Your task to perform on an android device: Open internet settings Image 0: 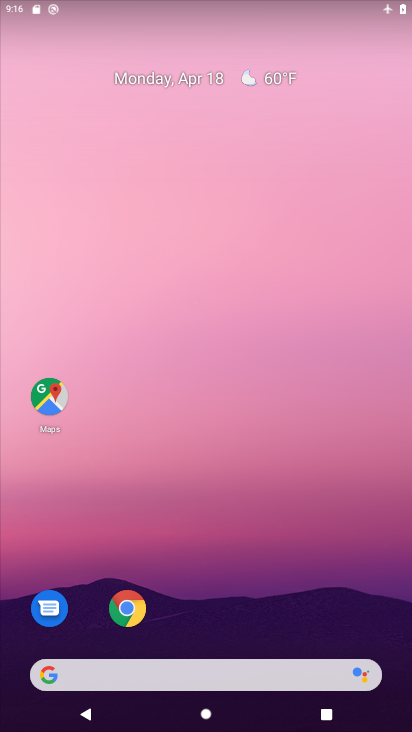
Step 0: drag from (322, 606) to (332, 105)
Your task to perform on an android device: Open internet settings Image 1: 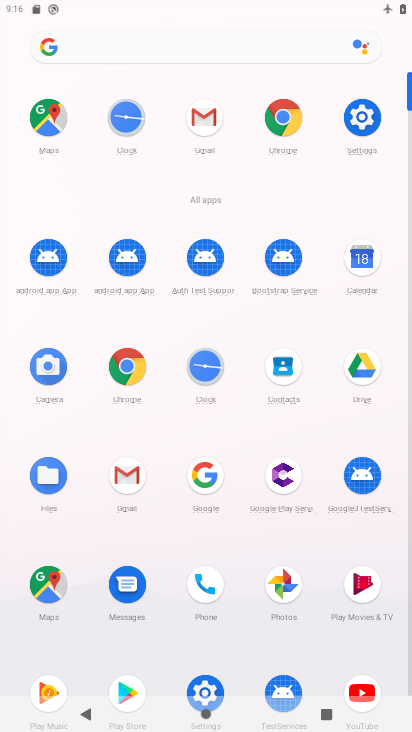
Step 1: click (359, 113)
Your task to perform on an android device: Open internet settings Image 2: 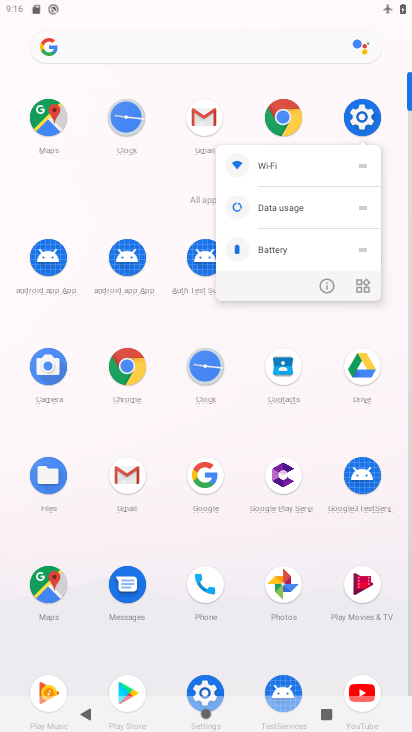
Step 2: click (319, 73)
Your task to perform on an android device: Open internet settings Image 3: 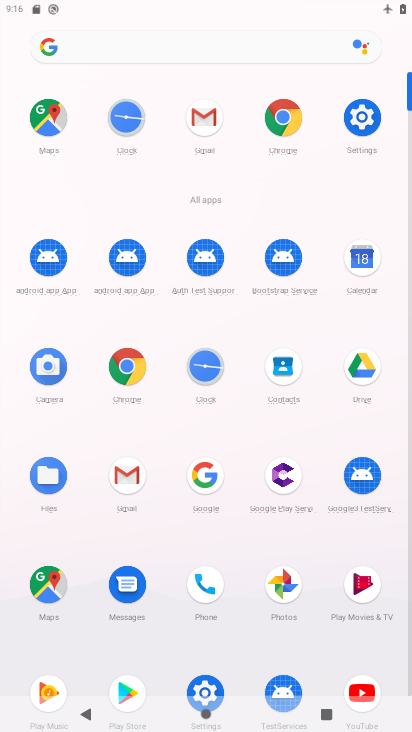
Step 3: click (367, 117)
Your task to perform on an android device: Open internet settings Image 4: 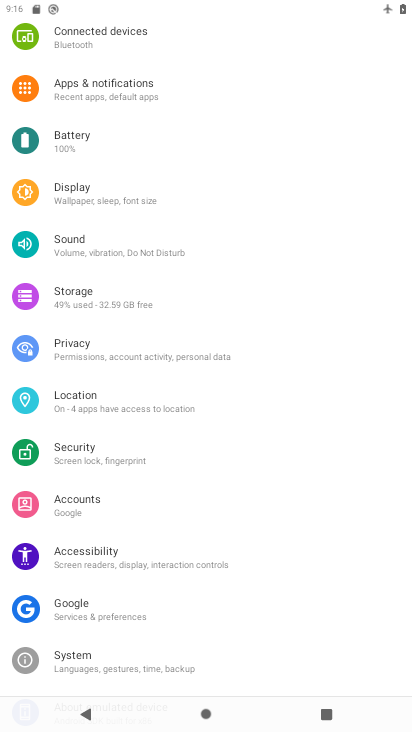
Step 4: drag from (209, 134) to (234, 530)
Your task to perform on an android device: Open internet settings Image 5: 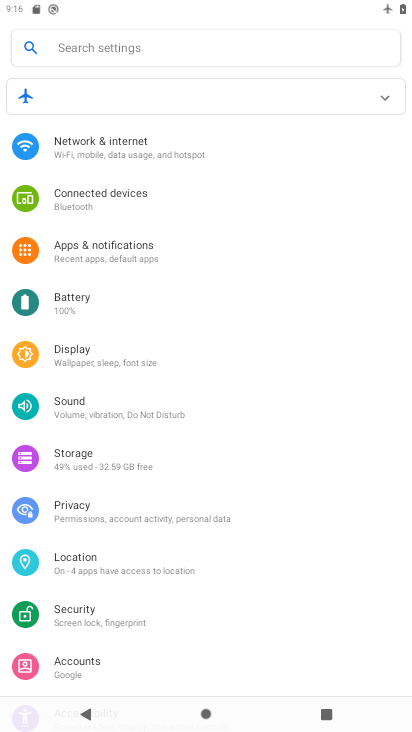
Step 5: click (116, 146)
Your task to perform on an android device: Open internet settings Image 6: 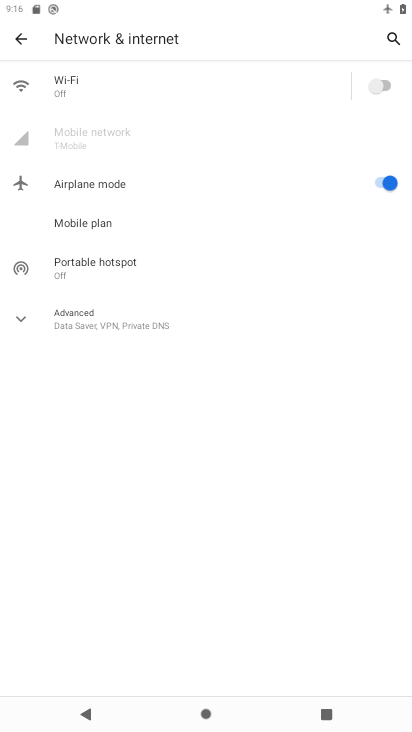
Step 6: task complete